Your task to perform on an android device: stop showing notifications on the lock screen Image 0: 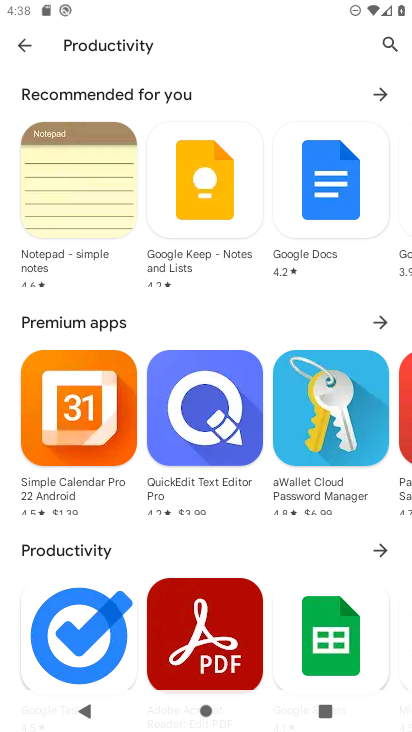
Step 0: press home button
Your task to perform on an android device: stop showing notifications on the lock screen Image 1: 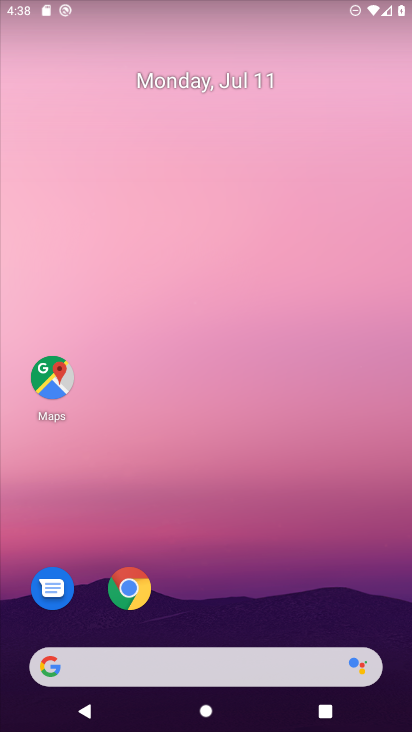
Step 1: drag from (213, 630) to (211, 367)
Your task to perform on an android device: stop showing notifications on the lock screen Image 2: 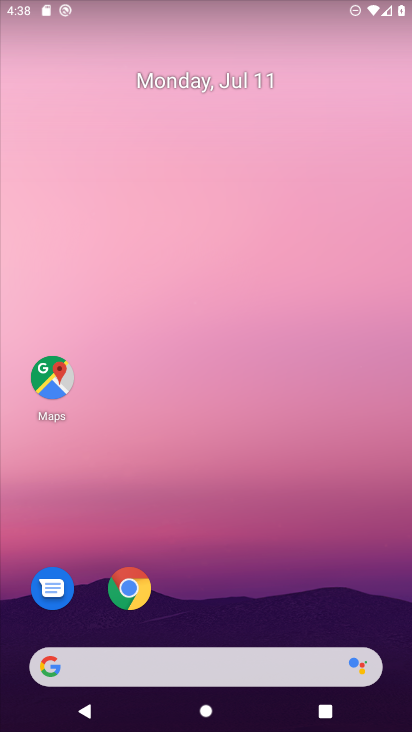
Step 2: drag from (215, 624) to (244, 134)
Your task to perform on an android device: stop showing notifications on the lock screen Image 3: 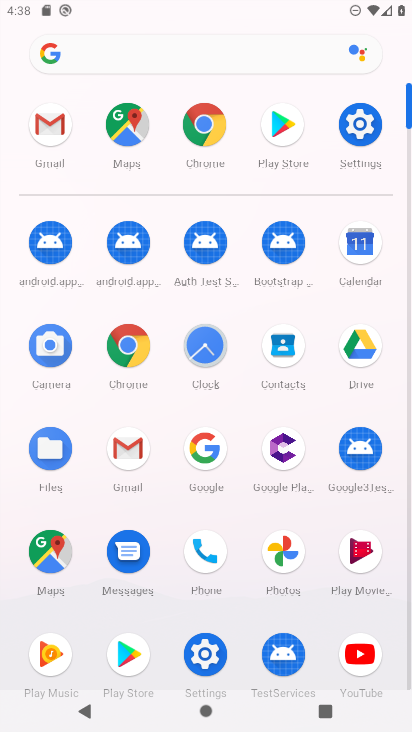
Step 3: click (361, 129)
Your task to perform on an android device: stop showing notifications on the lock screen Image 4: 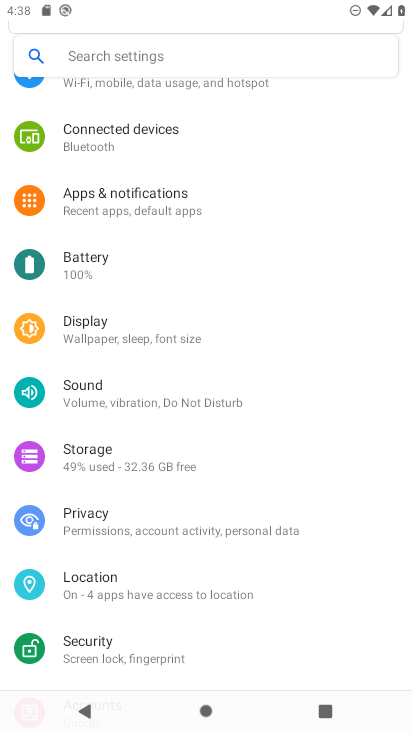
Step 4: click (136, 201)
Your task to perform on an android device: stop showing notifications on the lock screen Image 5: 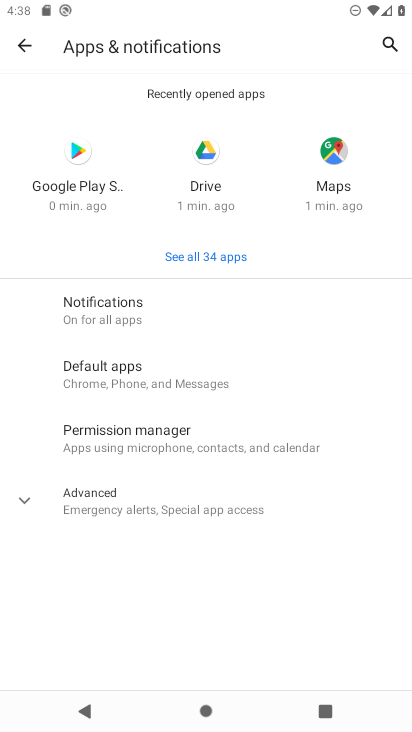
Step 5: click (105, 308)
Your task to perform on an android device: stop showing notifications on the lock screen Image 6: 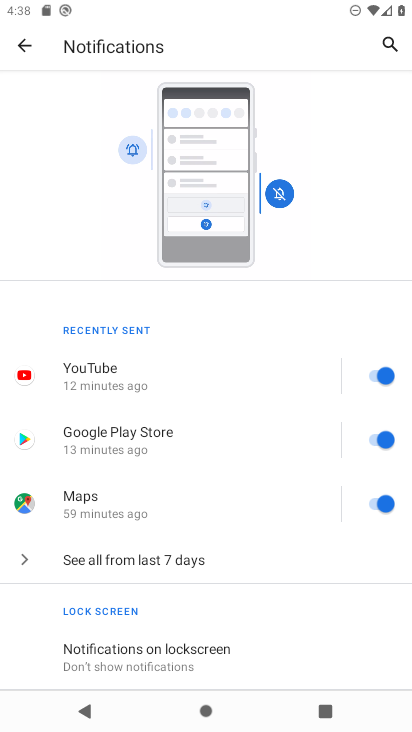
Step 6: drag from (308, 614) to (282, 308)
Your task to perform on an android device: stop showing notifications on the lock screen Image 7: 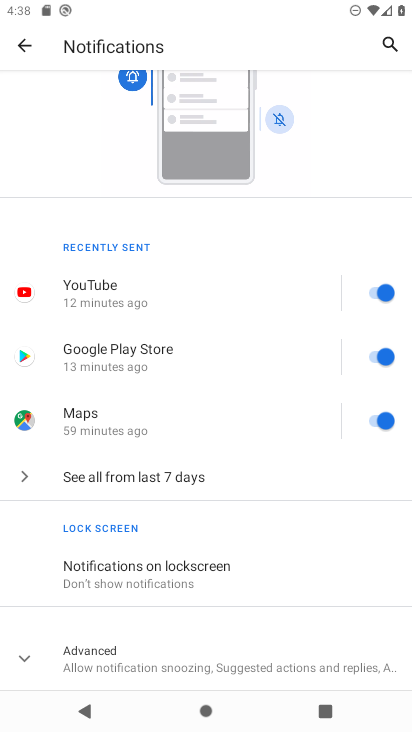
Step 7: click (117, 582)
Your task to perform on an android device: stop showing notifications on the lock screen Image 8: 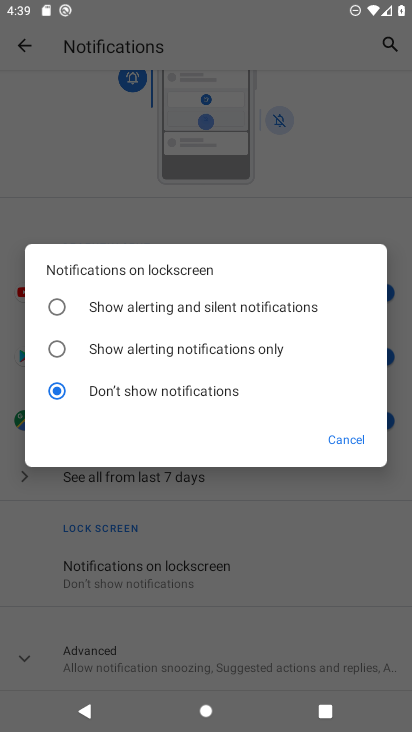
Step 8: task complete